Your task to perform on an android device: Go to network settings Image 0: 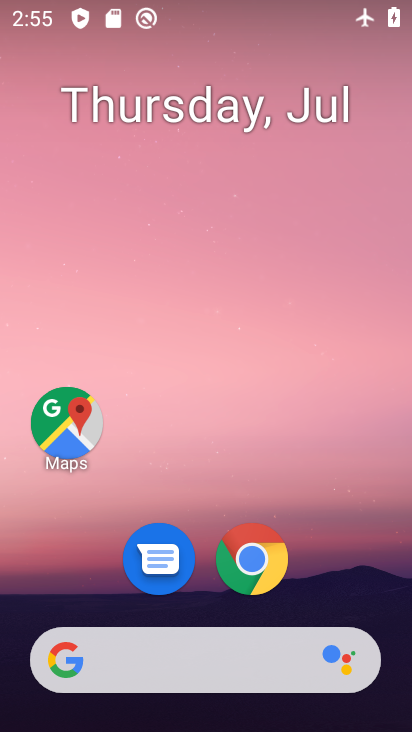
Step 0: drag from (197, 639) to (233, 179)
Your task to perform on an android device: Go to network settings Image 1: 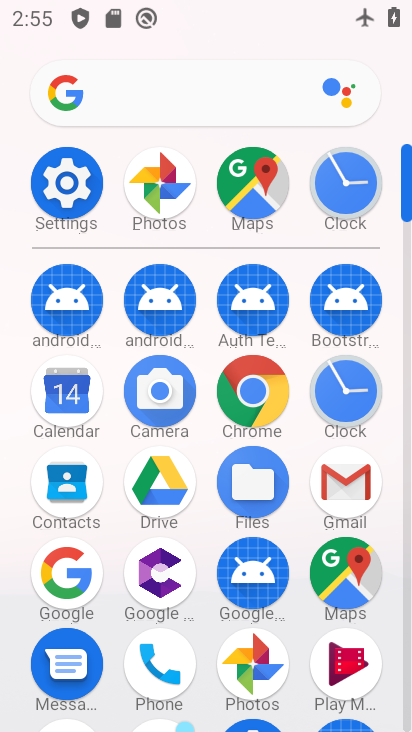
Step 1: click (71, 195)
Your task to perform on an android device: Go to network settings Image 2: 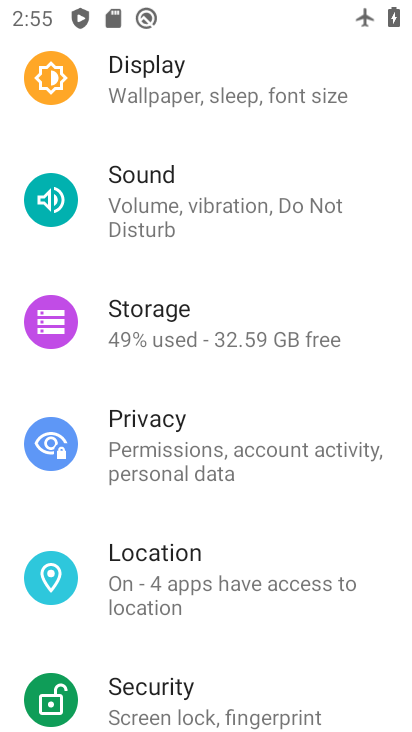
Step 2: drag from (152, 343) to (159, 678)
Your task to perform on an android device: Go to network settings Image 3: 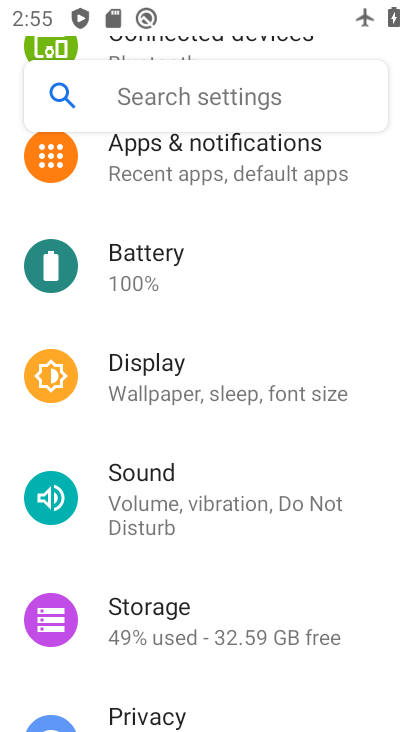
Step 3: drag from (223, 373) to (192, 729)
Your task to perform on an android device: Go to network settings Image 4: 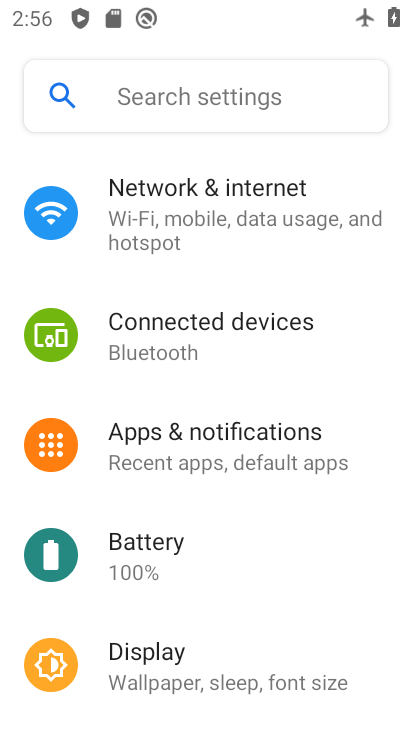
Step 4: click (200, 239)
Your task to perform on an android device: Go to network settings Image 5: 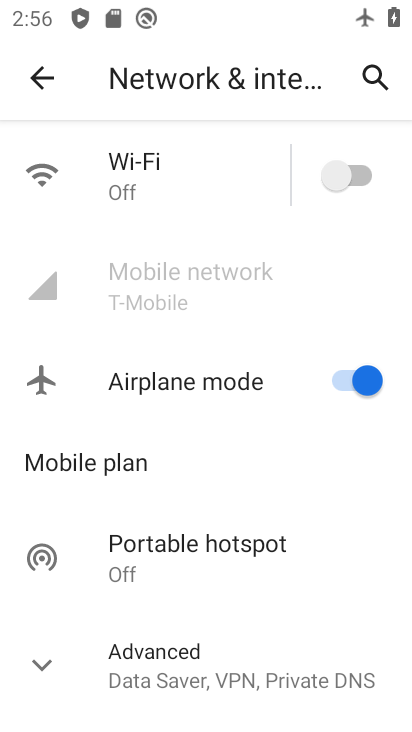
Step 5: task complete